Your task to perform on an android device: change the clock display to analog Image 0: 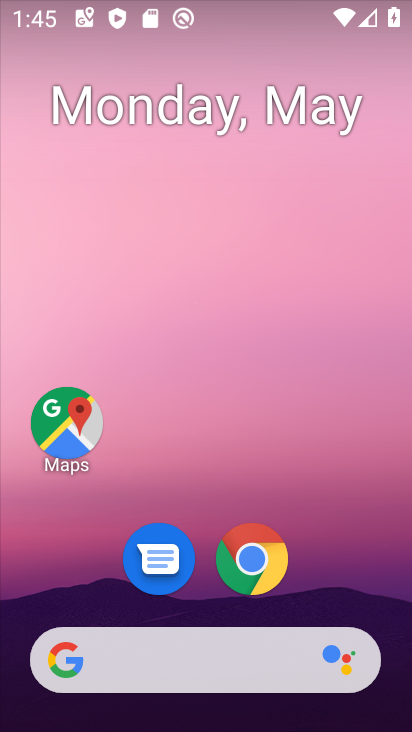
Step 0: drag from (145, 724) to (174, 191)
Your task to perform on an android device: change the clock display to analog Image 1: 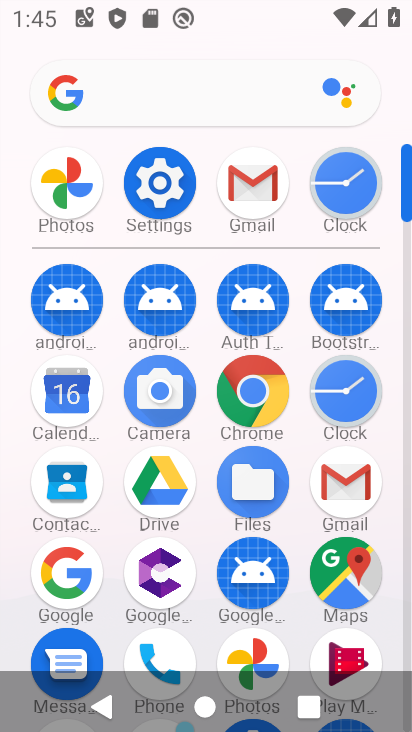
Step 1: click (182, 185)
Your task to perform on an android device: change the clock display to analog Image 2: 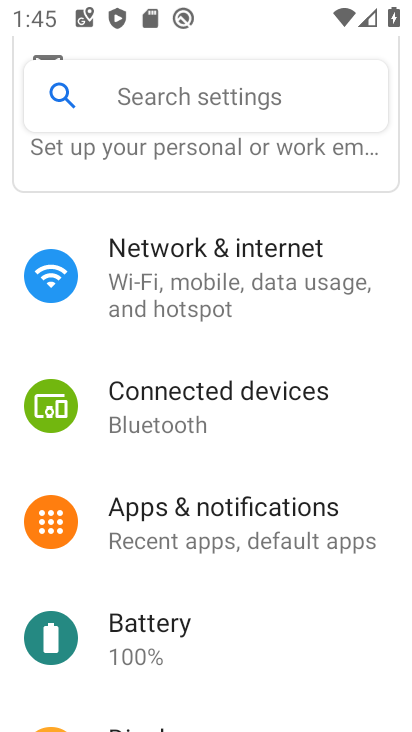
Step 2: press home button
Your task to perform on an android device: change the clock display to analog Image 3: 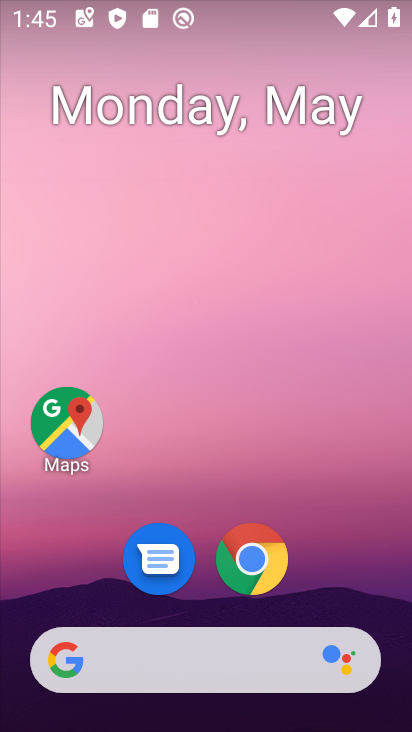
Step 3: drag from (283, 703) to (157, 131)
Your task to perform on an android device: change the clock display to analog Image 4: 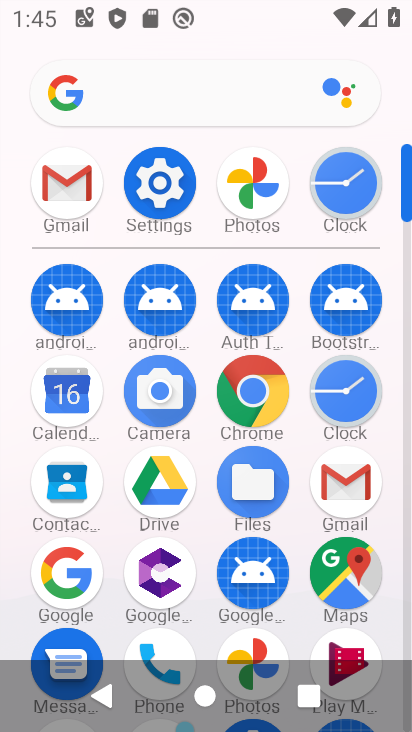
Step 4: click (341, 392)
Your task to perform on an android device: change the clock display to analog Image 5: 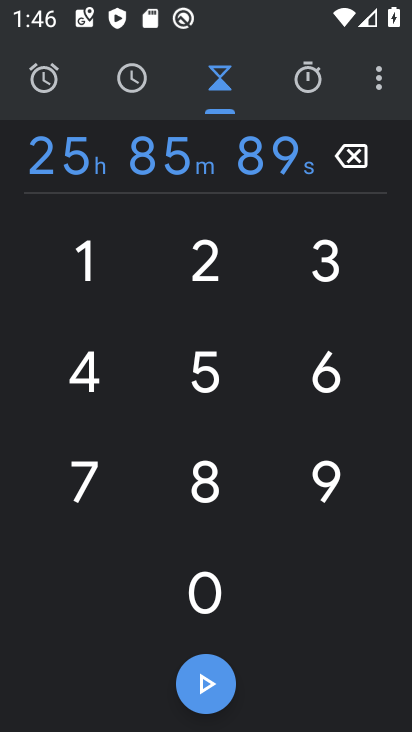
Step 5: click (379, 79)
Your task to perform on an android device: change the clock display to analog Image 6: 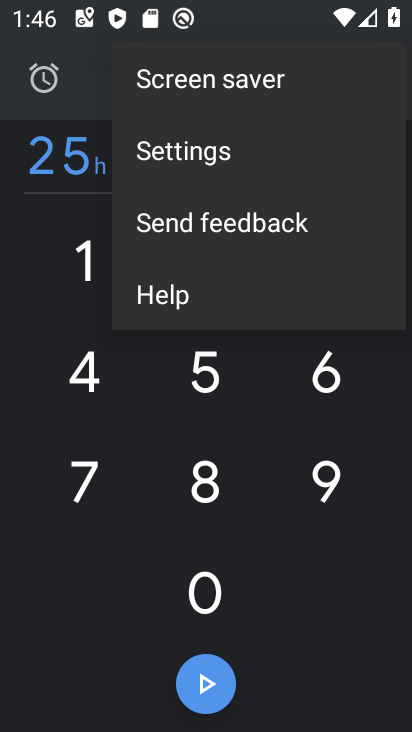
Step 6: click (274, 144)
Your task to perform on an android device: change the clock display to analog Image 7: 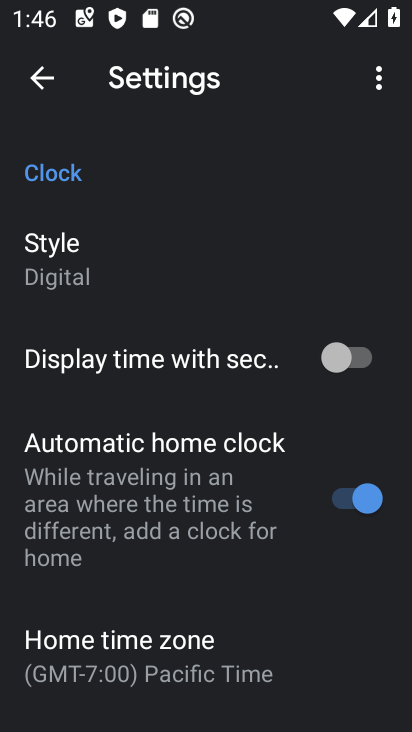
Step 7: click (59, 259)
Your task to perform on an android device: change the clock display to analog Image 8: 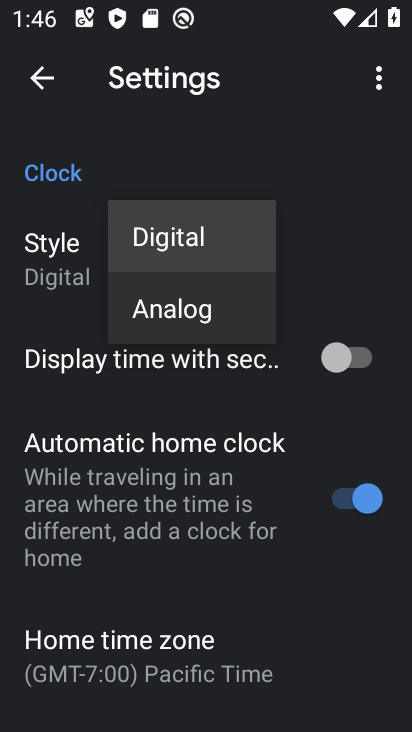
Step 8: click (210, 324)
Your task to perform on an android device: change the clock display to analog Image 9: 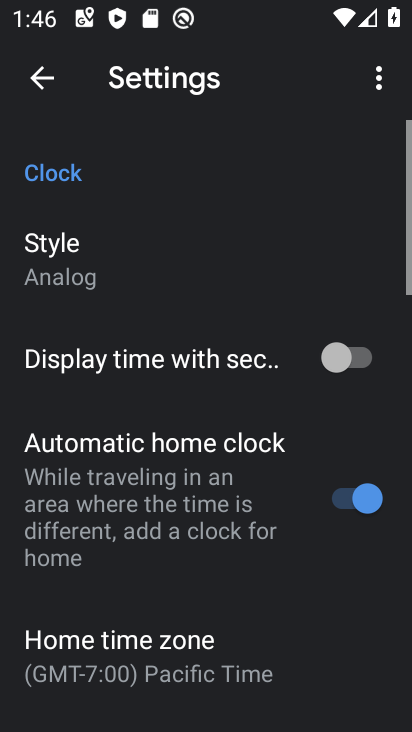
Step 9: task complete